Your task to perform on an android device: turn off notifications settings in the gmail app Image 0: 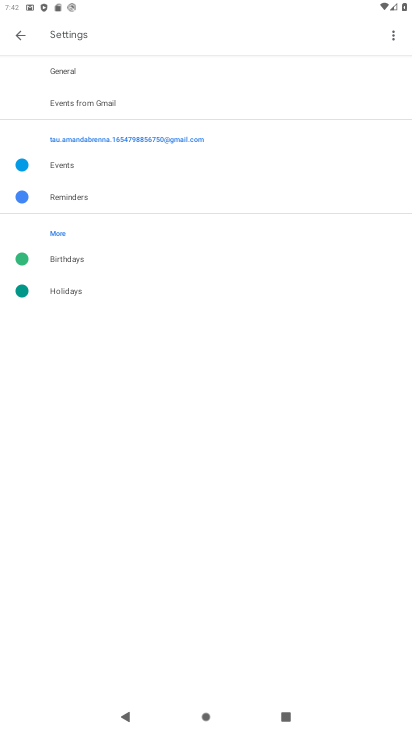
Step 0: press home button
Your task to perform on an android device: turn off notifications settings in the gmail app Image 1: 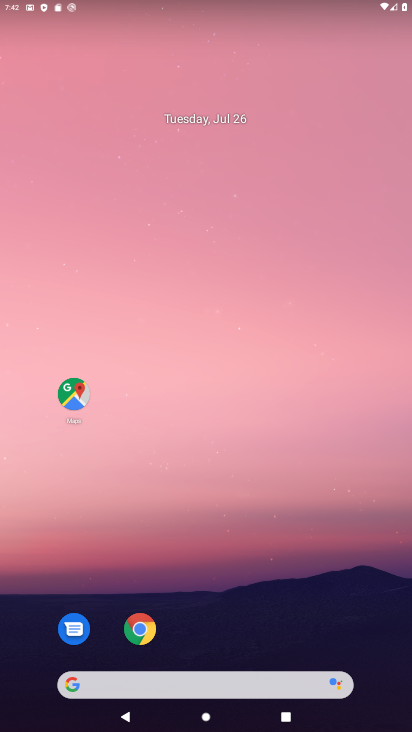
Step 1: drag from (226, 658) to (268, 68)
Your task to perform on an android device: turn off notifications settings in the gmail app Image 2: 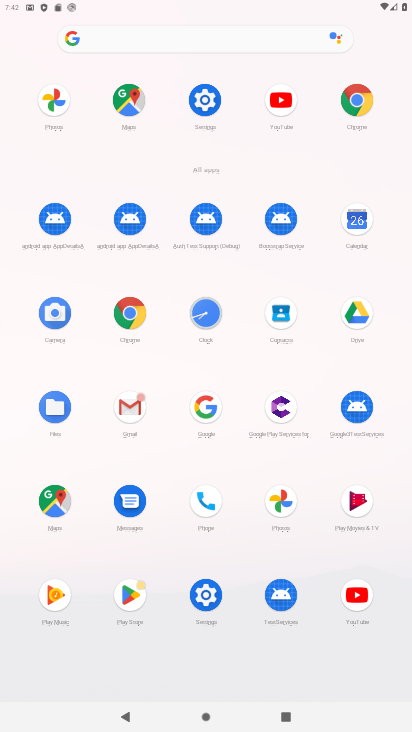
Step 2: click (127, 401)
Your task to perform on an android device: turn off notifications settings in the gmail app Image 3: 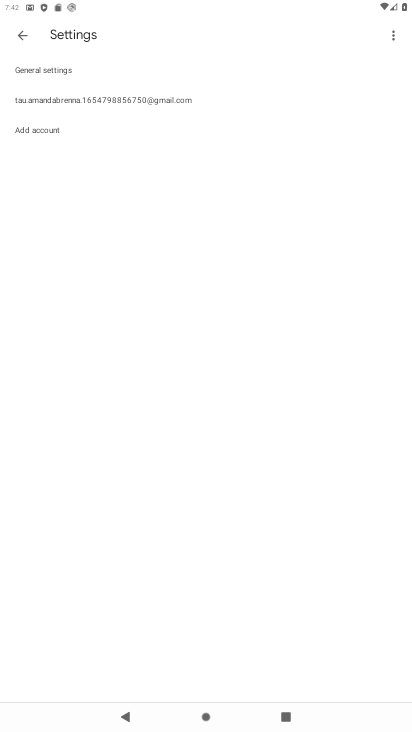
Step 3: click (38, 64)
Your task to perform on an android device: turn off notifications settings in the gmail app Image 4: 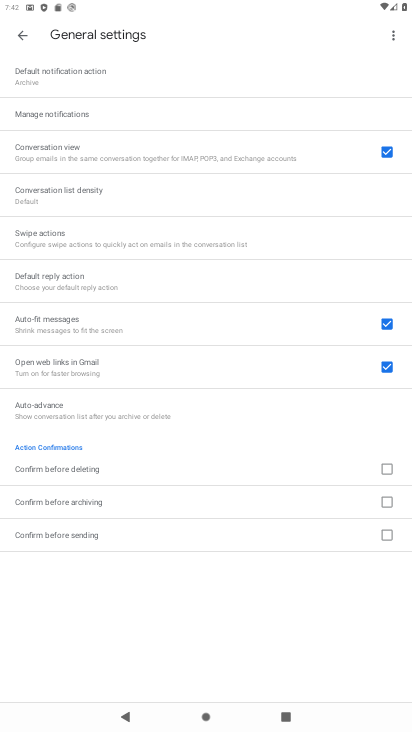
Step 4: click (95, 110)
Your task to perform on an android device: turn off notifications settings in the gmail app Image 5: 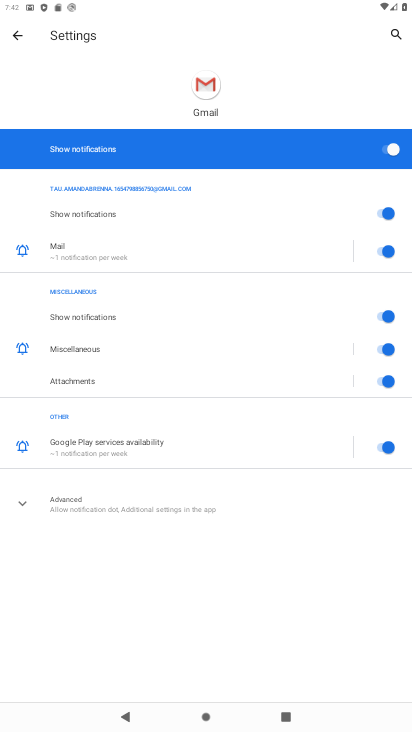
Step 5: click (388, 150)
Your task to perform on an android device: turn off notifications settings in the gmail app Image 6: 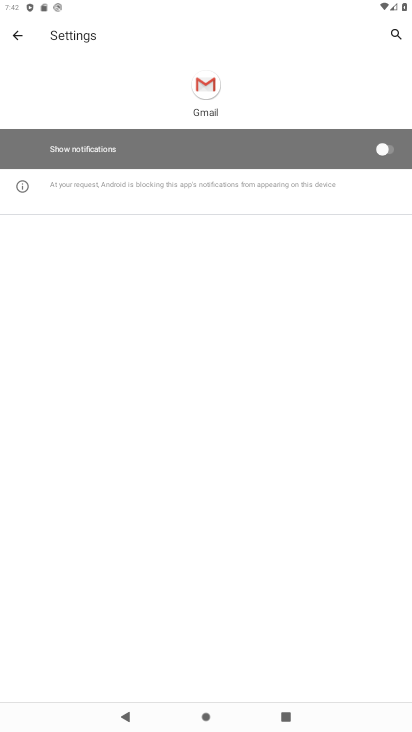
Step 6: task complete